Your task to perform on an android device: change the clock style Image 0: 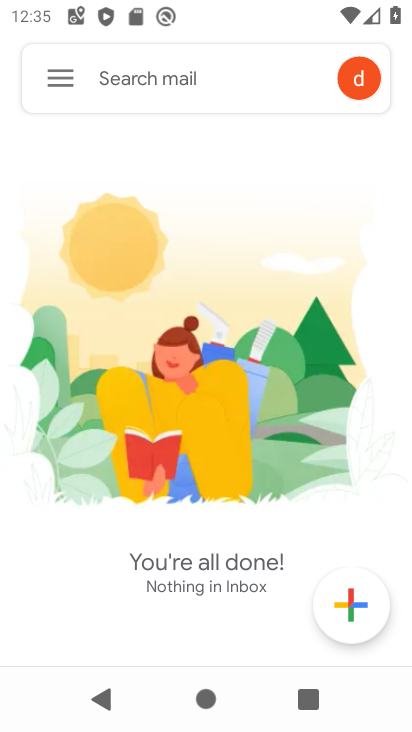
Step 0: press home button
Your task to perform on an android device: change the clock style Image 1: 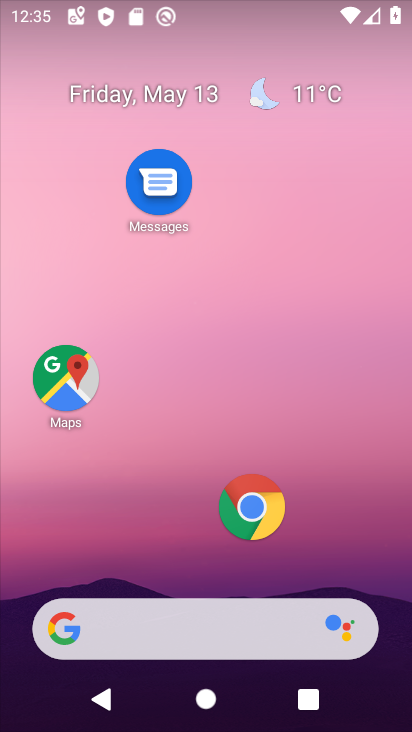
Step 1: drag from (186, 568) to (269, 31)
Your task to perform on an android device: change the clock style Image 2: 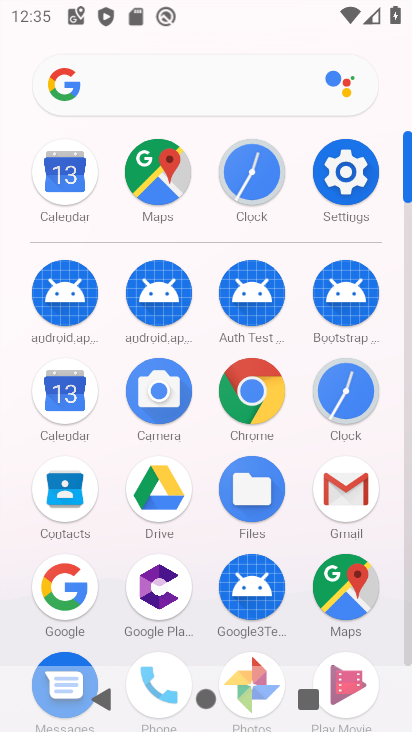
Step 2: click (354, 391)
Your task to perform on an android device: change the clock style Image 3: 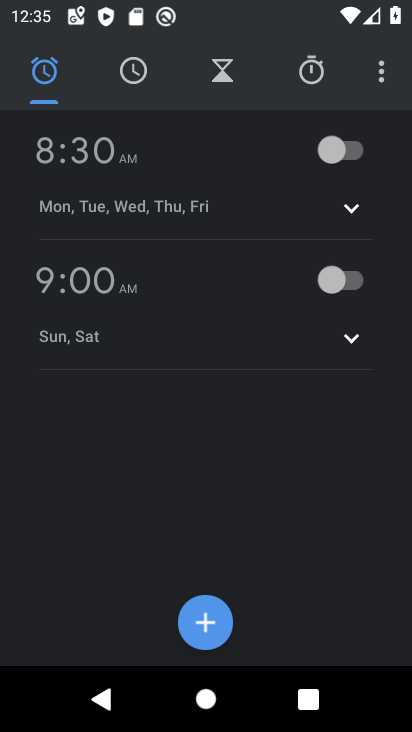
Step 3: click (377, 73)
Your task to perform on an android device: change the clock style Image 4: 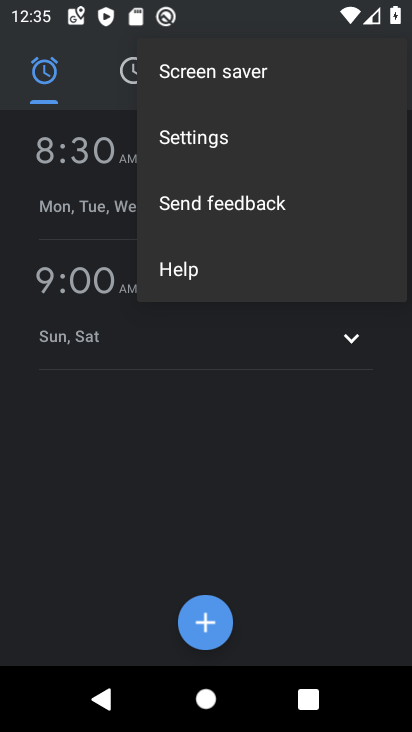
Step 4: click (216, 134)
Your task to perform on an android device: change the clock style Image 5: 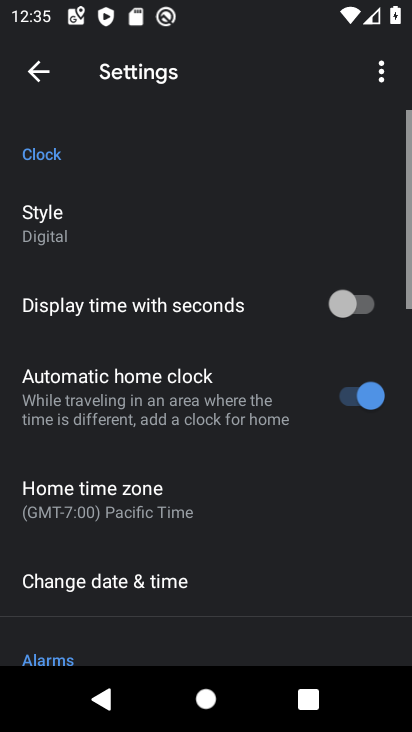
Step 5: click (32, 220)
Your task to perform on an android device: change the clock style Image 6: 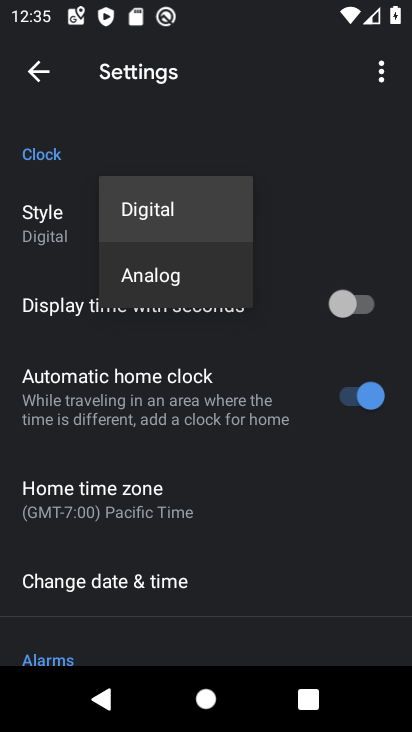
Step 6: click (152, 261)
Your task to perform on an android device: change the clock style Image 7: 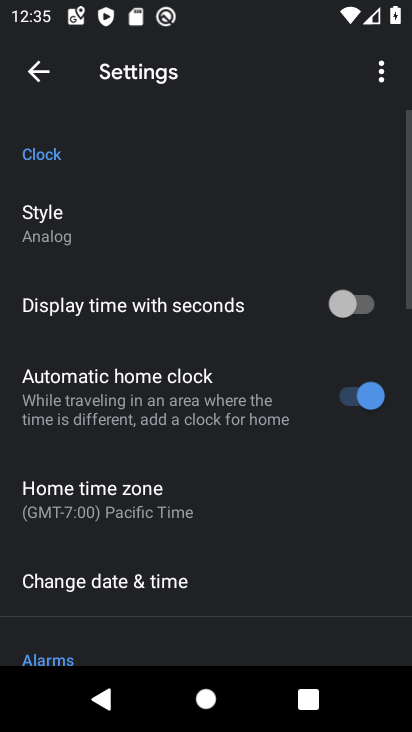
Step 7: task complete